Your task to perform on an android device: Turn on the flashlight Image 0: 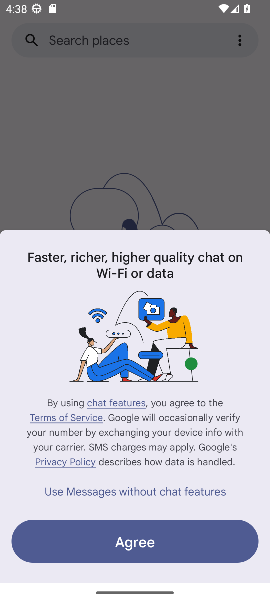
Step 0: press home button
Your task to perform on an android device: Turn on the flashlight Image 1: 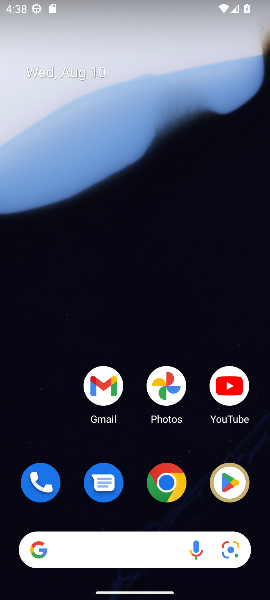
Step 1: drag from (54, 416) to (108, 11)
Your task to perform on an android device: Turn on the flashlight Image 2: 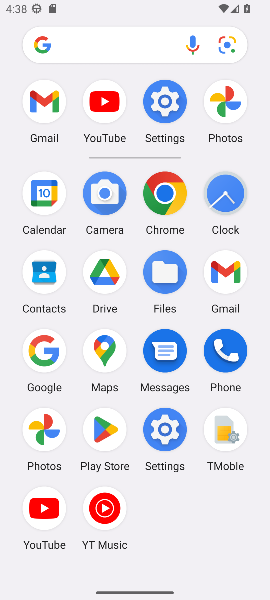
Step 2: click (161, 99)
Your task to perform on an android device: Turn on the flashlight Image 3: 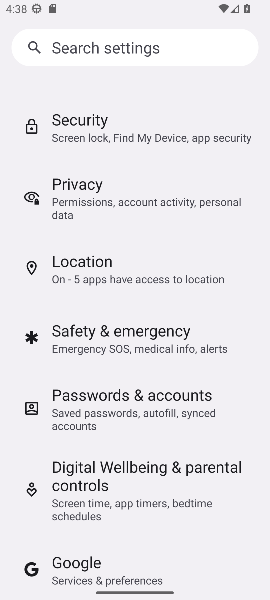
Step 3: drag from (156, 438) to (202, 86)
Your task to perform on an android device: Turn on the flashlight Image 4: 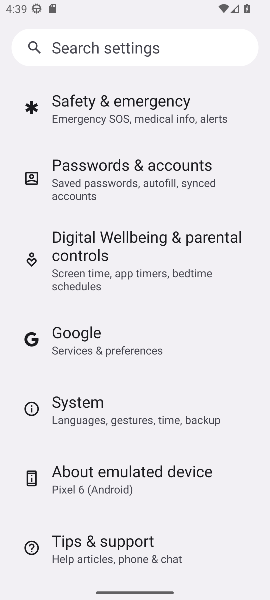
Step 4: drag from (136, 157) to (128, 501)
Your task to perform on an android device: Turn on the flashlight Image 5: 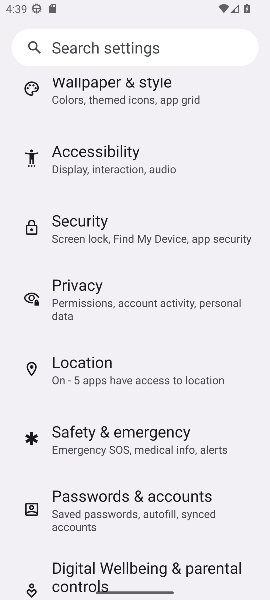
Step 5: drag from (168, 125) to (152, 487)
Your task to perform on an android device: Turn on the flashlight Image 6: 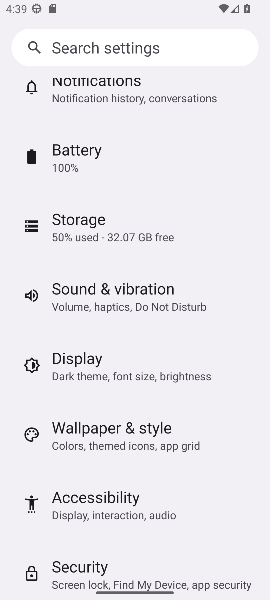
Step 6: drag from (155, 173) to (158, 455)
Your task to perform on an android device: Turn on the flashlight Image 7: 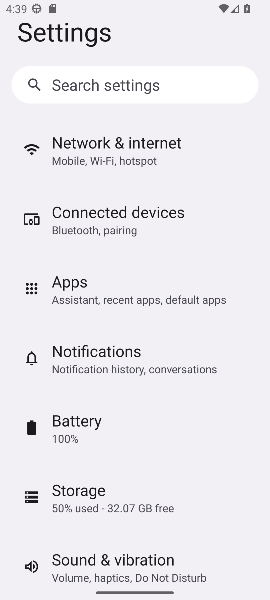
Step 7: drag from (163, 131) to (152, 362)
Your task to perform on an android device: Turn on the flashlight Image 8: 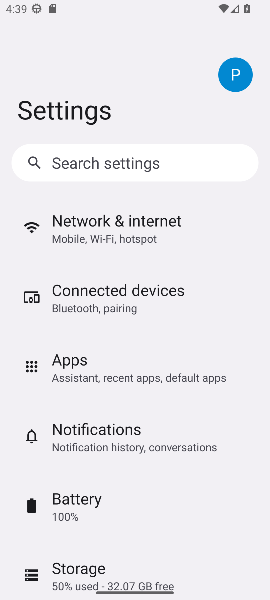
Step 8: click (147, 162)
Your task to perform on an android device: Turn on the flashlight Image 9: 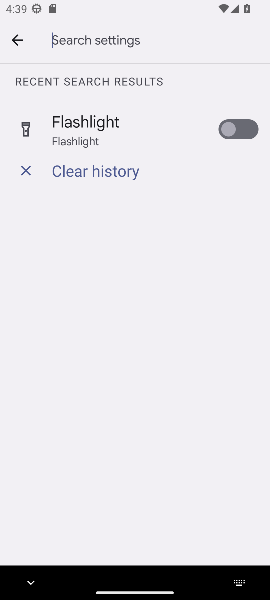
Step 9: click (238, 127)
Your task to perform on an android device: Turn on the flashlight Image 10: 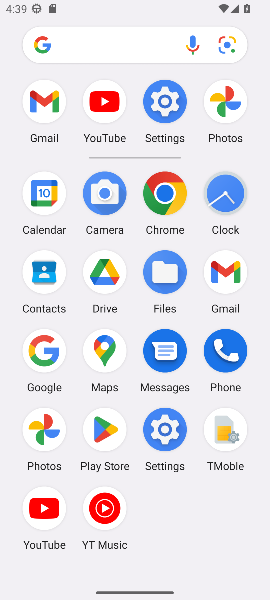
Step 10: task complete